Your task to perform on an android device: How big is the universe? Image 0: 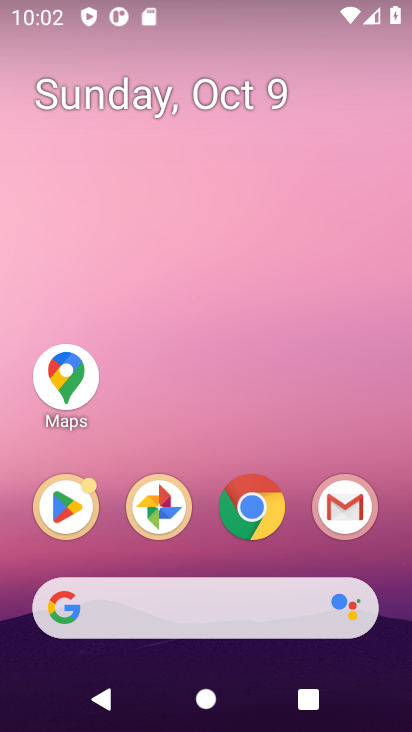
Step 0: drag from (298, 567) to (285, 60)
Your task to perform on an android device: How big is the universe? Image 1: 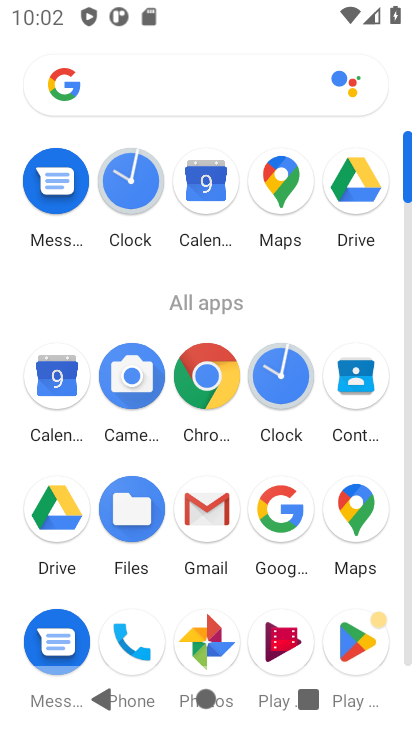
Step 1: click (210, 377)
Your task to perform on an android device: How big is the universe? Image 2: 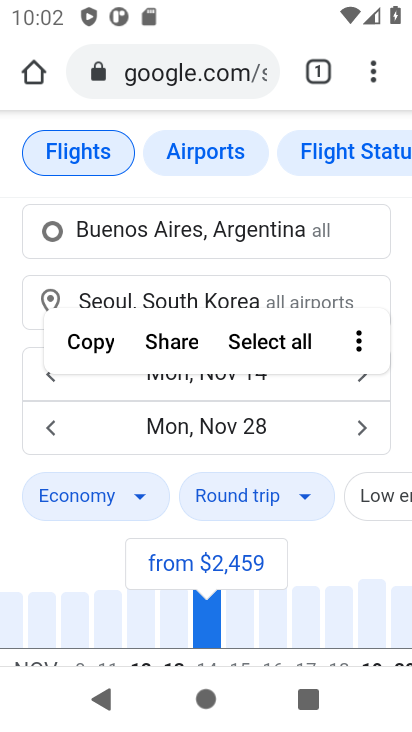
Step 2: click (168, 68)
Your task to perform on an android device: How big is the universe? Image 3: 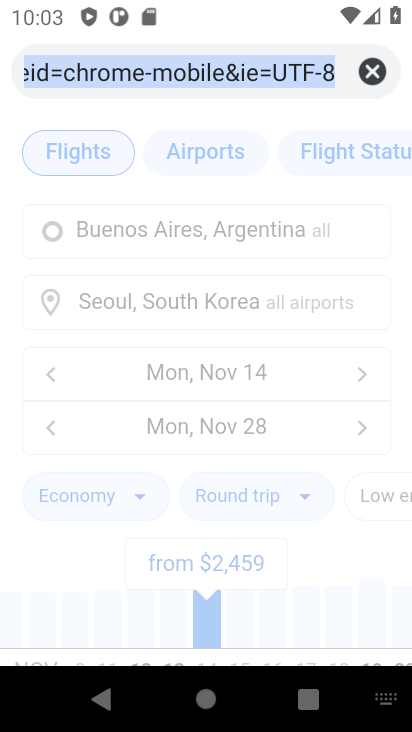
Step 3: type "How big is the universe?"
Your task to perform on an android device: How big is the universe? Image 4: 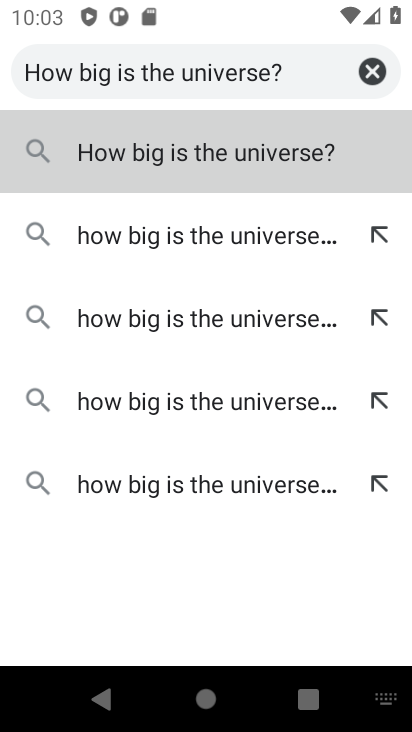
Step 4: press enter
Your task to perform on an android device: How big is the universe? Image 5: 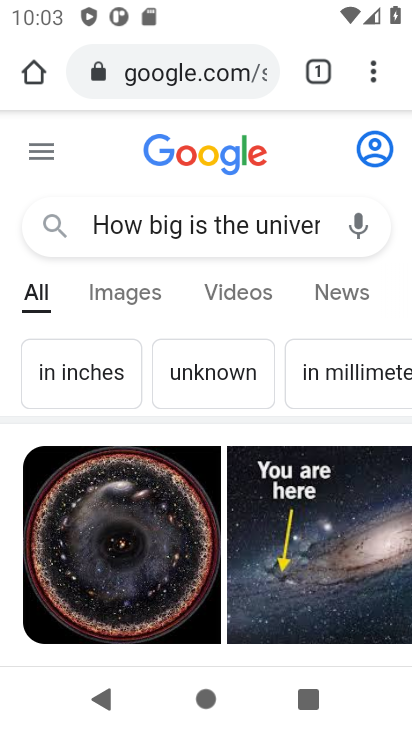
Step 5: task complete